Your task to perform on an android device: What's the weather going to be tomorrow? Image 0: 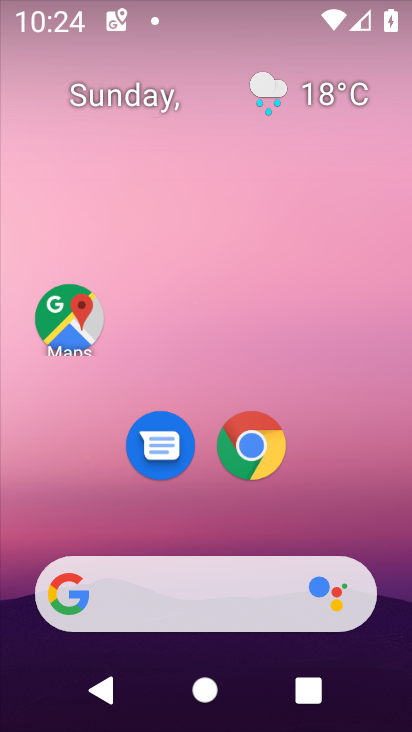
Step 0: press home button
Your task to perform on an android device: What's the weather going to be tomorrow? Image 1: 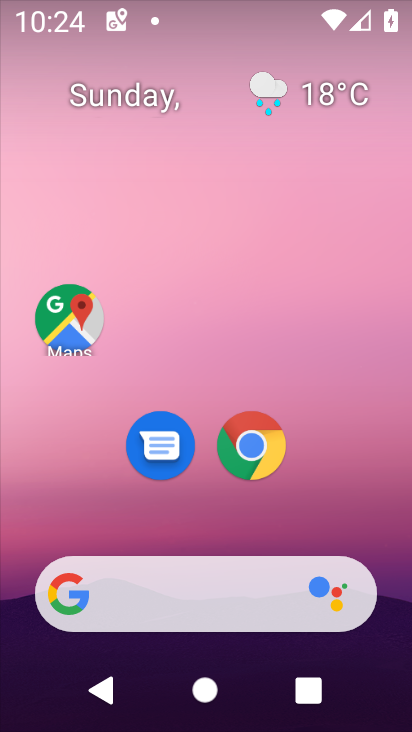
Step 1: click (321, 89)
Your task to perform on an android device: What's the weather going to be tomorrow? Image 2: 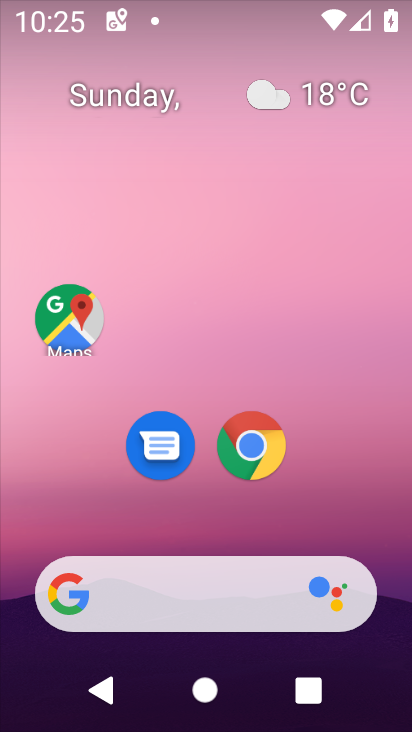
Step 2: click (324, 89)
Your task to perform on an android device: What's the weather going to be tomorrow? Image 3: 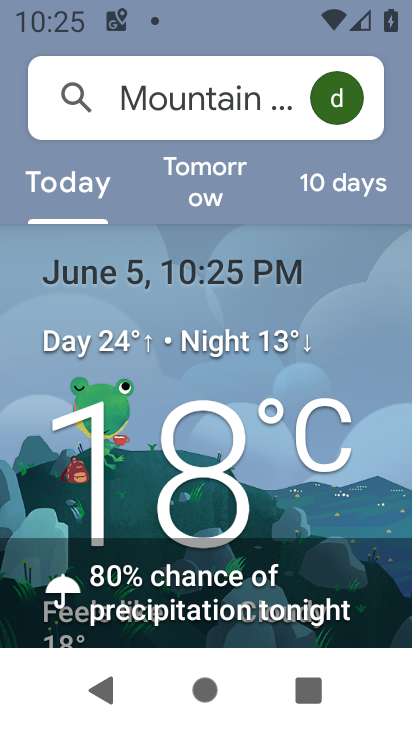
Step 3: task complete